Your task to perform on an android device: Go to settings Image 0: 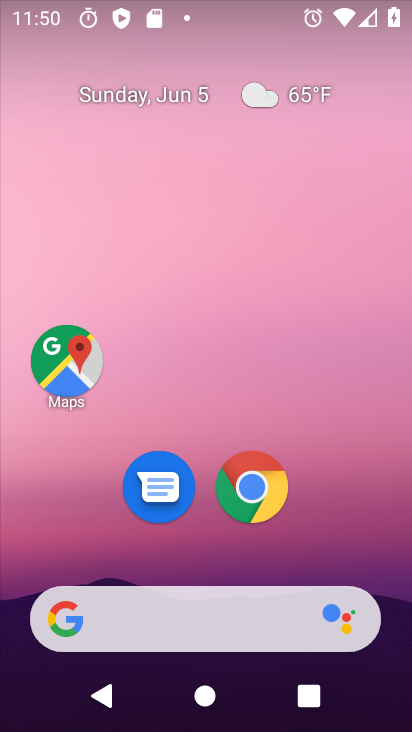
Step 0: drag from (330, 510) to (247, 137)
Your task to perform on an android device: Go to settings Image 1: 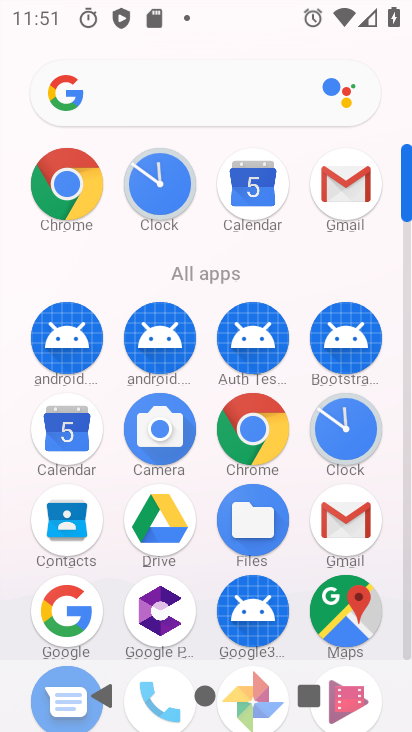
Step 1: drag from (301, 298) to (290, 99)
Your task to perform on an android device: Go to settings Image 2: 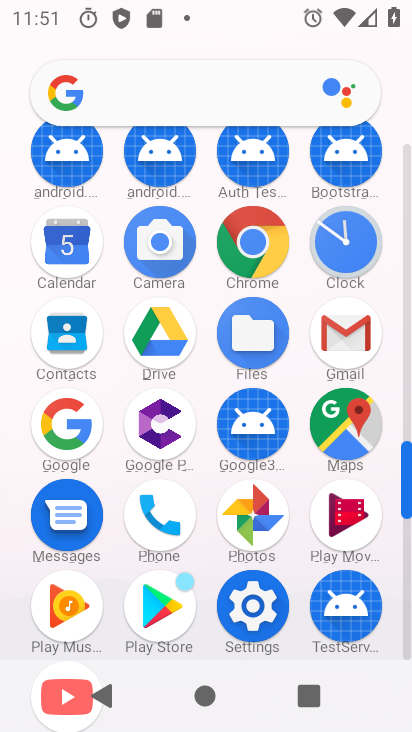
Step 2: click (254, 605)
Your task to perform on an android device: Go to settings Image 3: 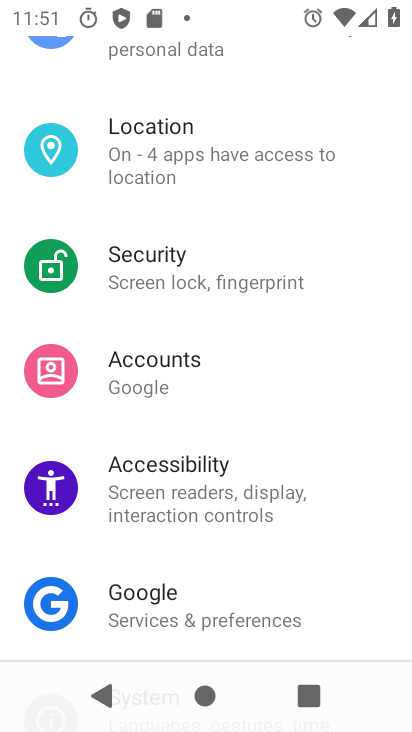
Step 3: task complete